Your task to perform on an android device: Open settings Image 0: 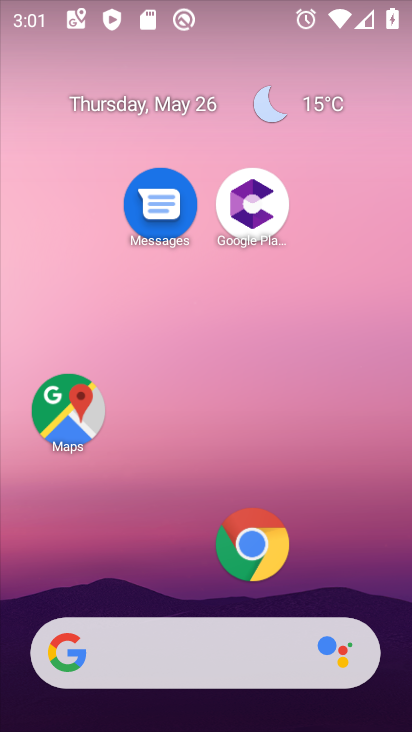
Step 0: drag from (163, 604) to (226, 139)
Your task to perform on an android device: Open settings Image 1: 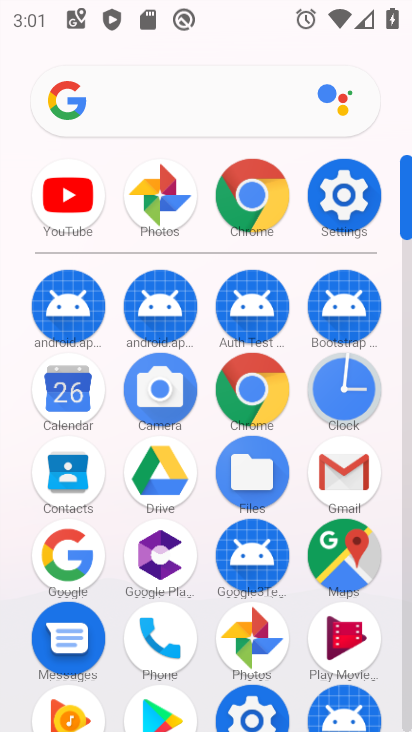
Step 1: click (339, 207)
Your task to perform on an android device: Open settings Image 2: 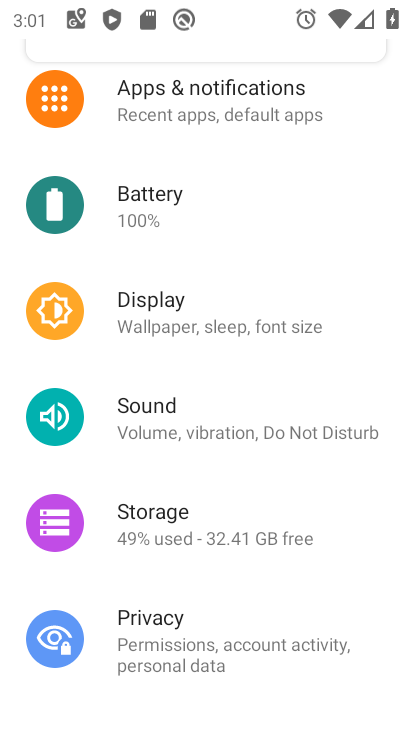
Step 2: task complete